Your task to perform on an android device: turn off smart reply in the gmail app Image 0: 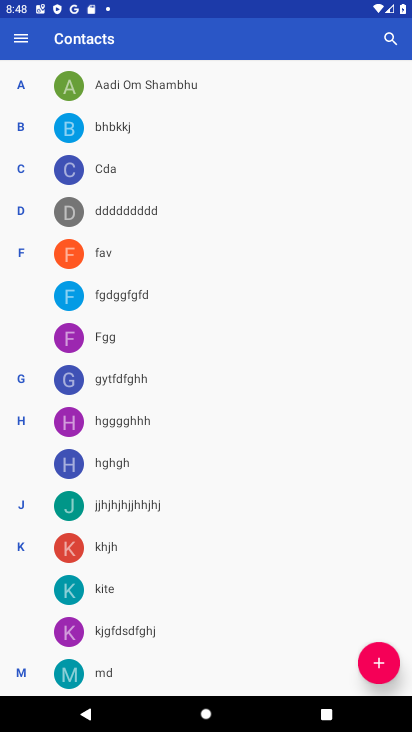
Step 0: press home button
Your task to perform on an android device: turn off smart reply in the gmail app Image 1: 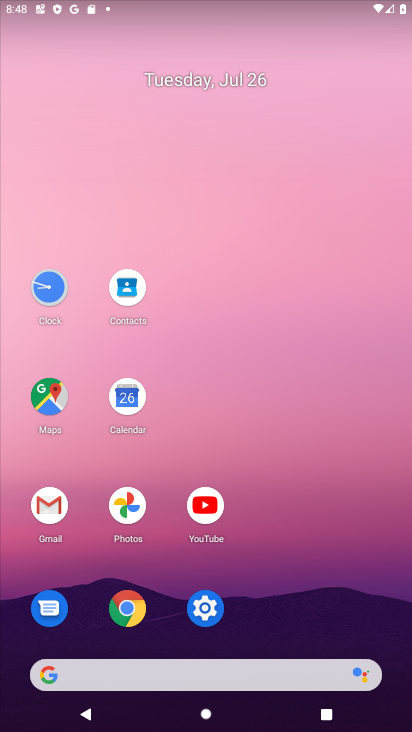
Step 1: click (50, 517)
Your task to perform on an android device: turn off smart reply in the gmail app Image 2: 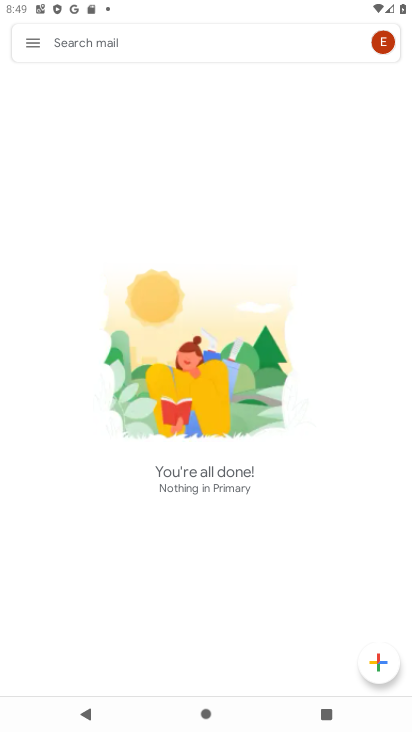
Step 2: click (28, 38)
Your task to perform on an android device: turn off smart reply in the gmail app Image 3: 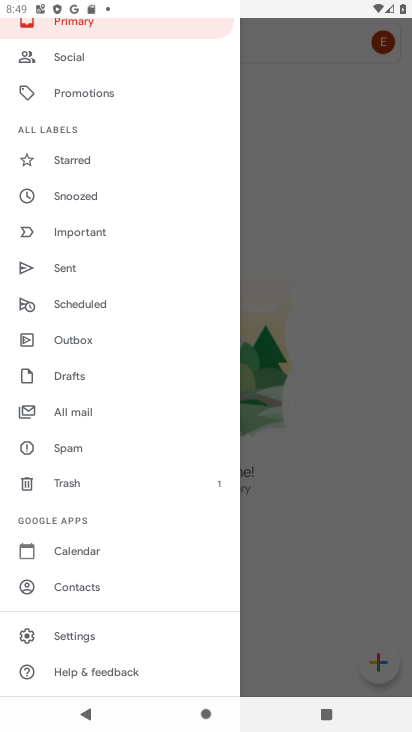
Step 3: click (71, 638)
Your task to perform on an android device: turn off smart reply in the gmail app Image 4: 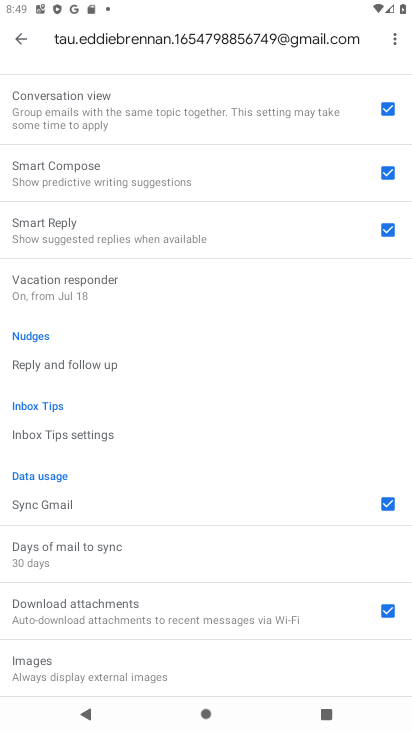
Step 4: click (388, 232)
Your task to perform on an android device: turn off smart reply in the gmail app Image 5: 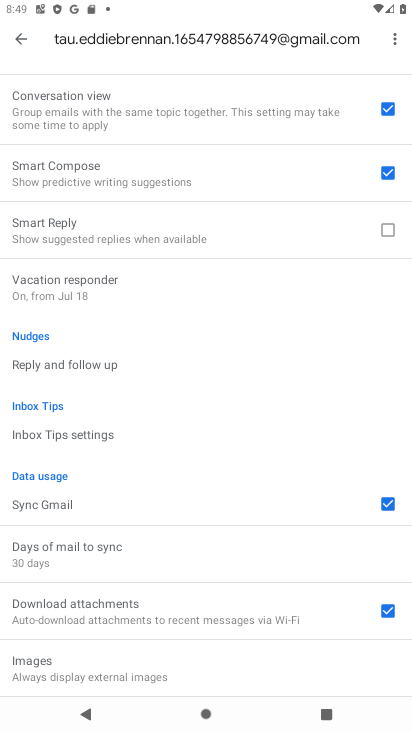
Step 5: task complete